Your task to perform on an android device: Open settings Image 0: 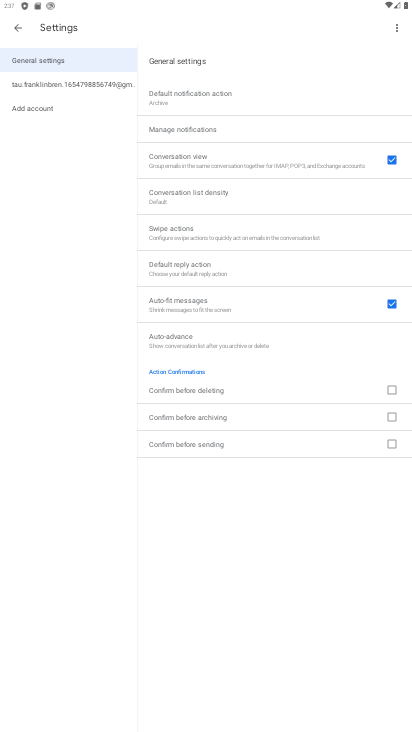
Step 0: press home button
Your task to perform on an android device: Open settings Image 1: 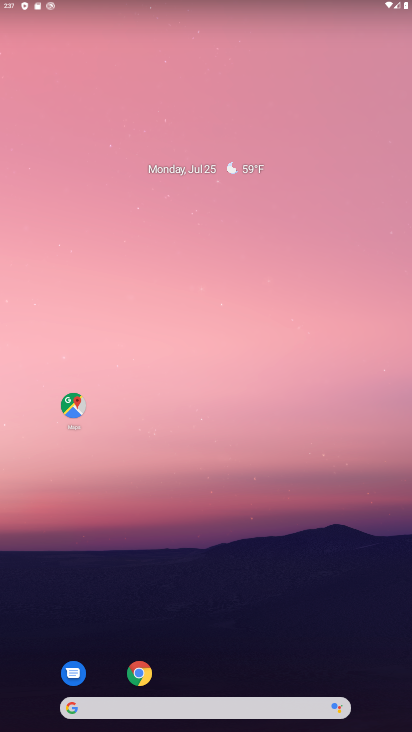
Step 1: drag from (179, 646) to (235, 145)
Your task to perform on an android device: Open settings Image 2: 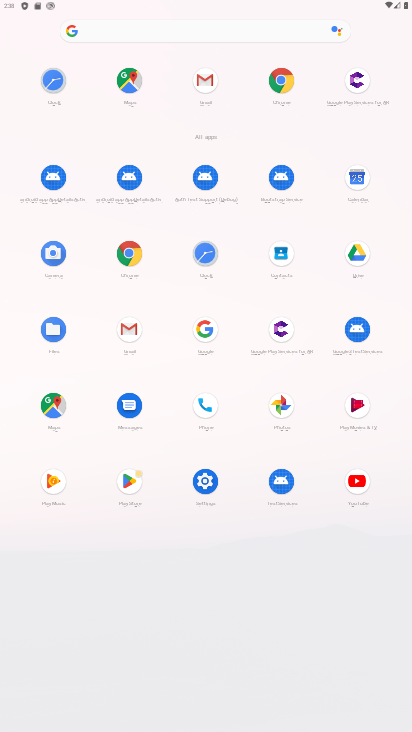
Step 2: click (210, 476)
Your task to perform on an android device: Open settings Image 3: 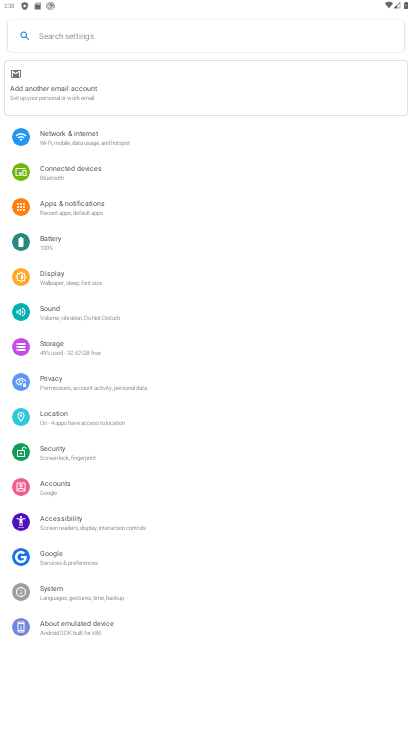
Step 3: task complete